Your task to perform on an android device: What's the US dollar exchange rateagainst the Swiss Franc? Image 0: 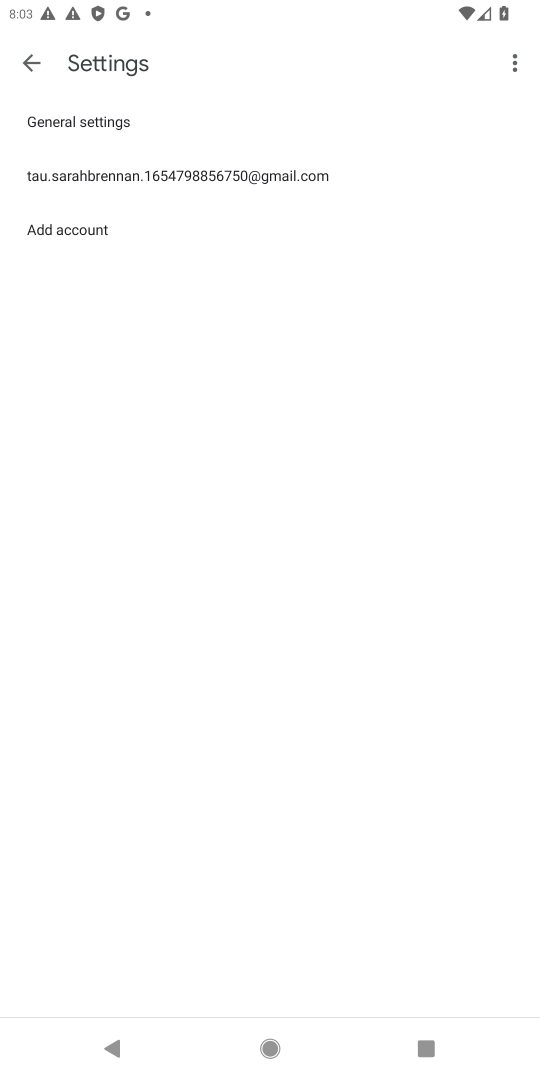
Step 0: press home button
Your task to perform on an android device: What's the US dollar exchange rateagainst the Swiss Franc? Image 1: 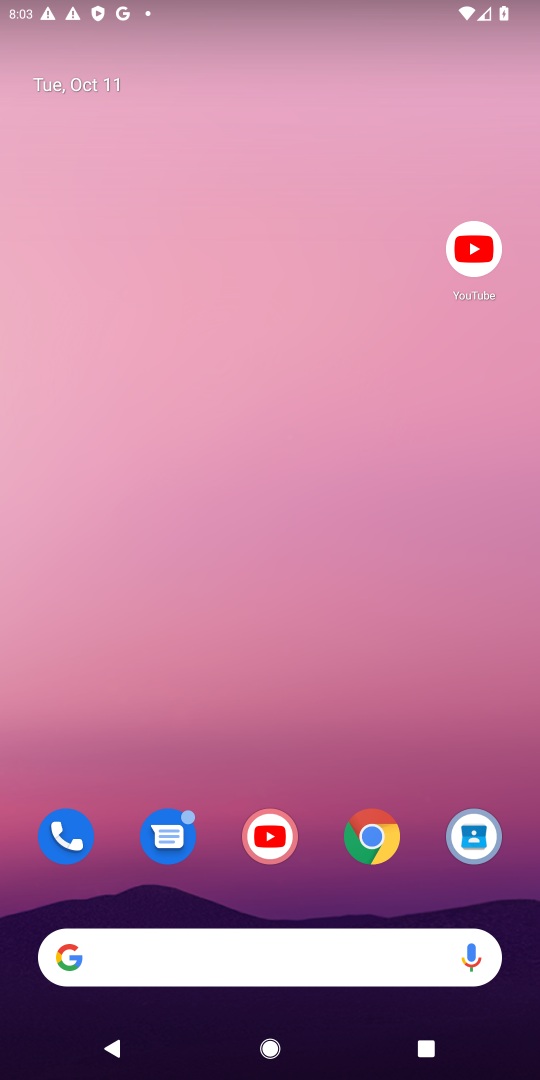
Step 1: click (366, 841)
Your task to perform on an android device: What's the US dollar exchange rateagainst the Swiss Franc? Image 2: 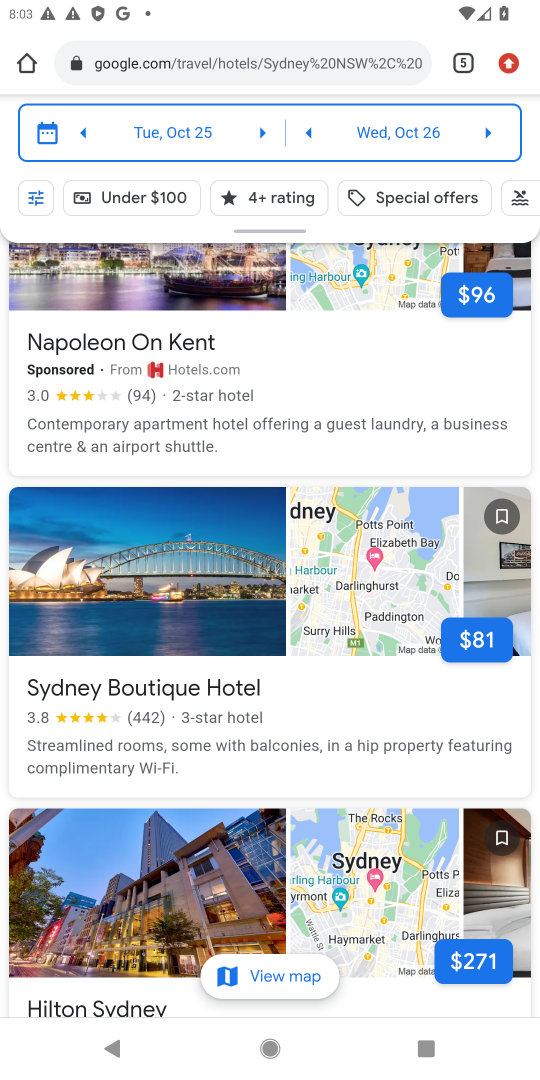
Step 2: click (343, 64)
Your task to perform on an android device: What's the US dollar exchange rateagainst the Swiss Franc? Image 3: 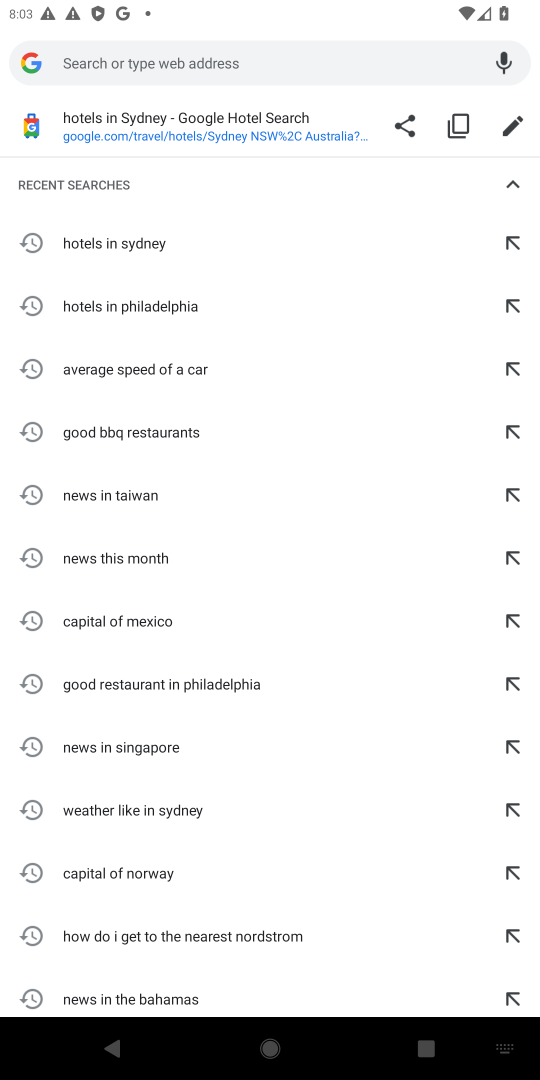
Step 3: type "US dollar exchange rateagainst the Swiss Franc"
Your task to perform on an android device: What's the US dollar exchange rateagainst the Swiss Franc? Image 4: 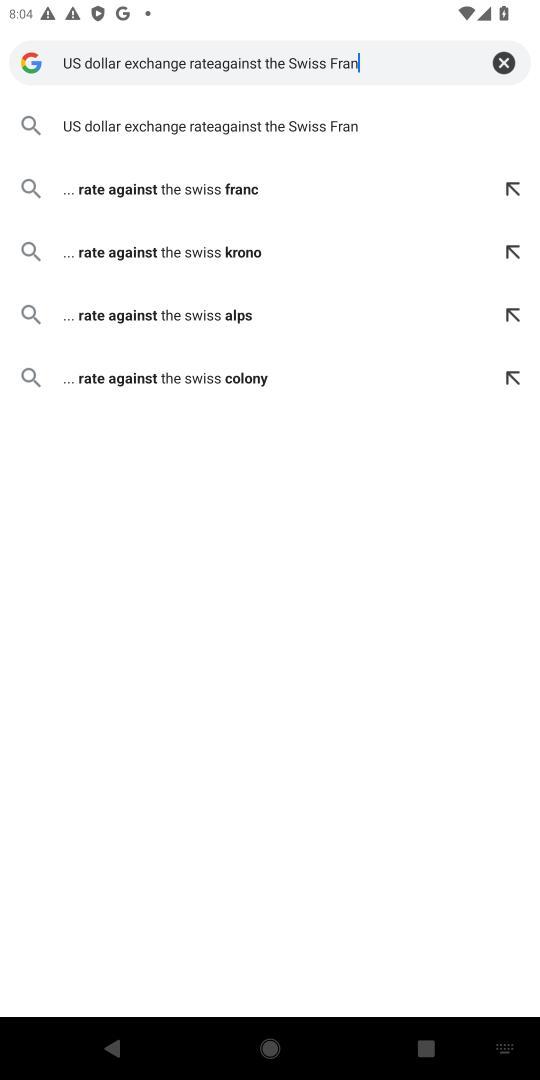
Step 4: press enter
Your task to perform on an android device: What's the US dollar exchange rateagainst the Swiss Franc? Image 5: 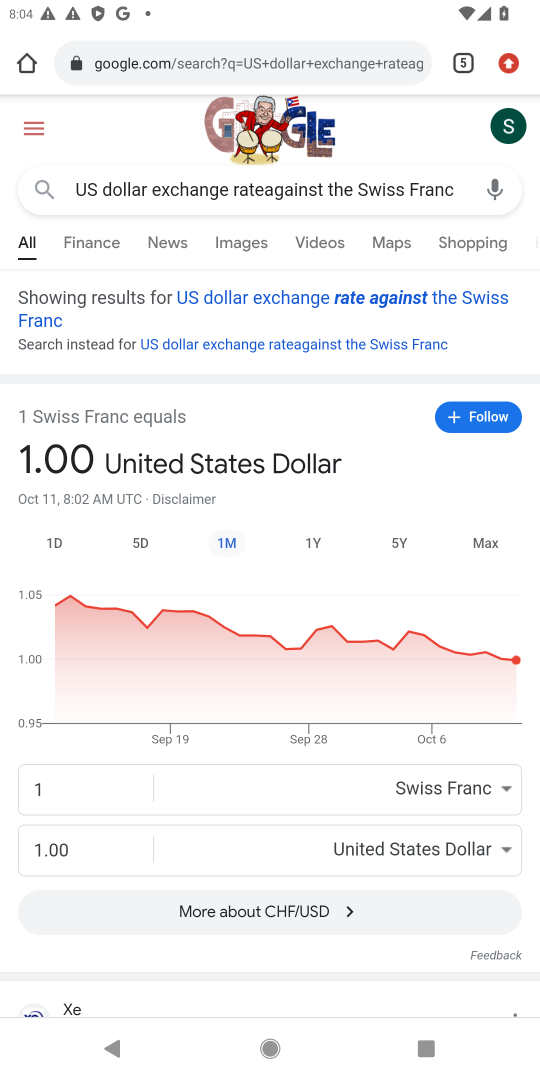
Step 5: task complete